Your task to perform on an android device: toggle notifications settings in the gmail app Image 0: 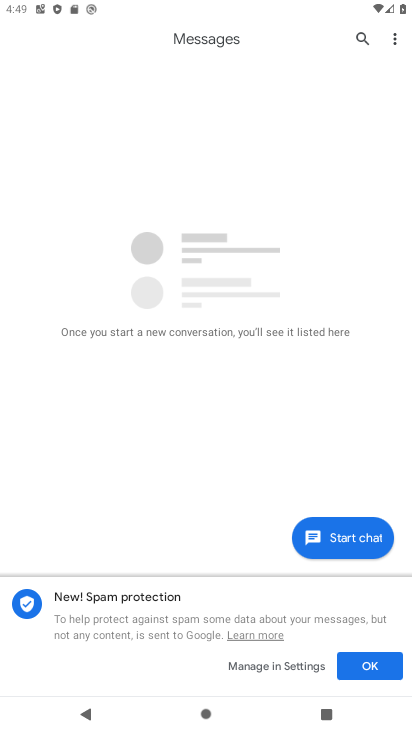
Step 0: press back button
Your task to perform on an android device: toggle notifications settings in the gmail app Image 1: 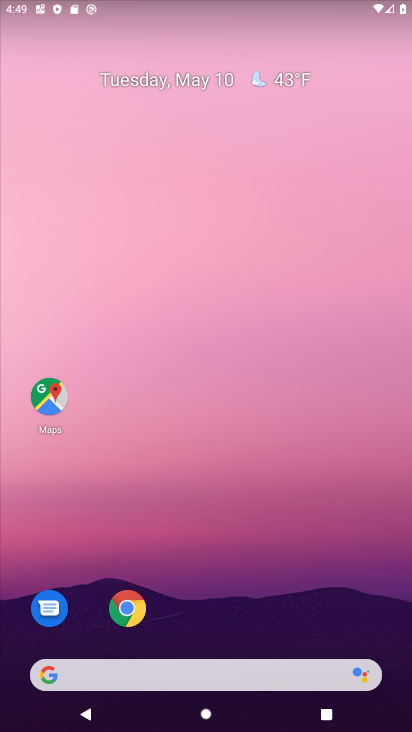
Step 1: drag from (225, 609) to (337, 59)
Your task to perform on an android device: toggle notifications settings in the gmail app Image 2: 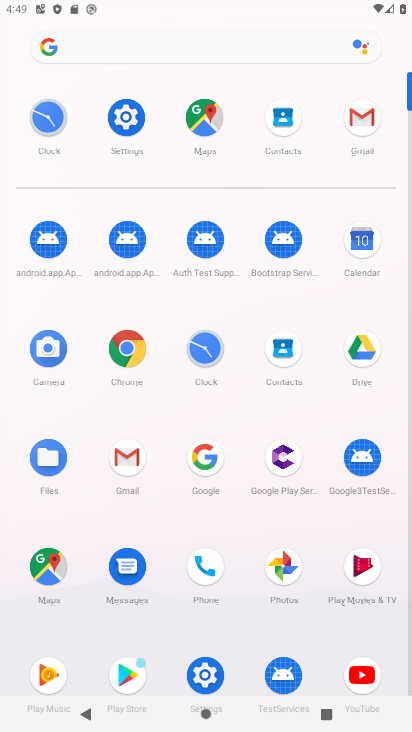
Step 2: click (356, 112)
Your task to perform on an android device: toggle notifications settings in the gmail app Image 3: 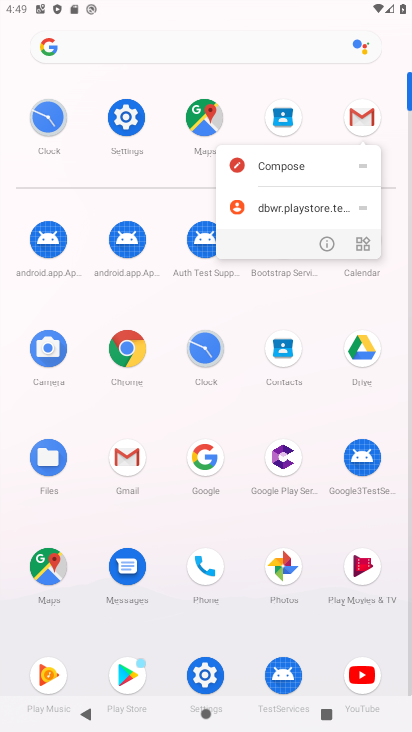
Step 3: click (327, 241)
Your task to perform on an android device: toggle notifications settings in the gmail app Image 4: 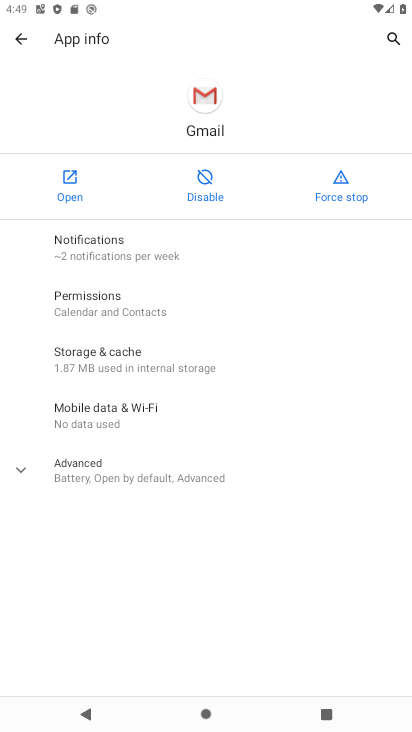
Step 4: click (54, 246)
Your task to perform on an android device: toggle notifications settings in the gmail app Image 5: 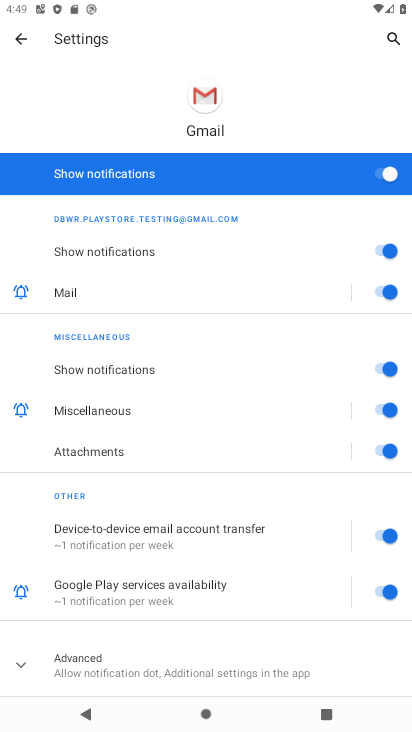
Step 5: click (386, 179)
Your task to perform on an android device: toggle notifications settings in the gmail app Image 6: 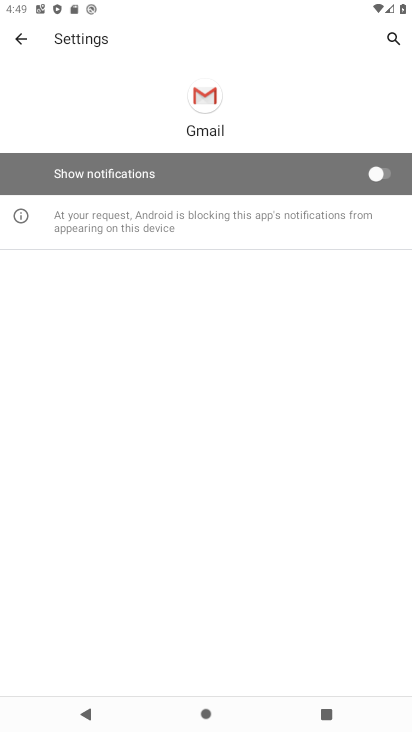
Step 6: task complete